Your task to perform on an android device: Go to location settings Image 0: 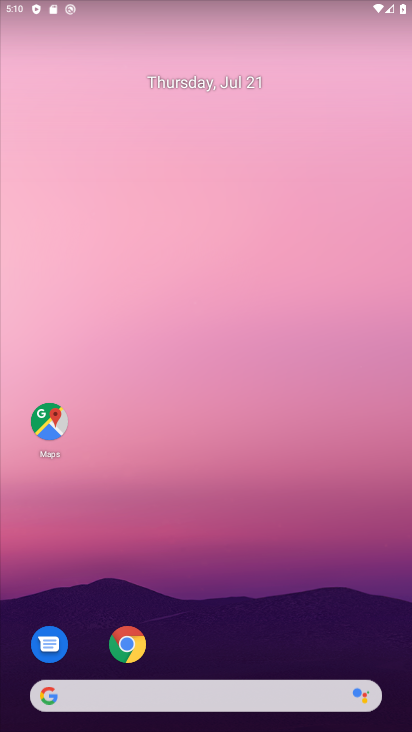
Step 0: drag from (279, 620) to (238, 313)
Your task to perform on an android device: Go to location settings Image 1: 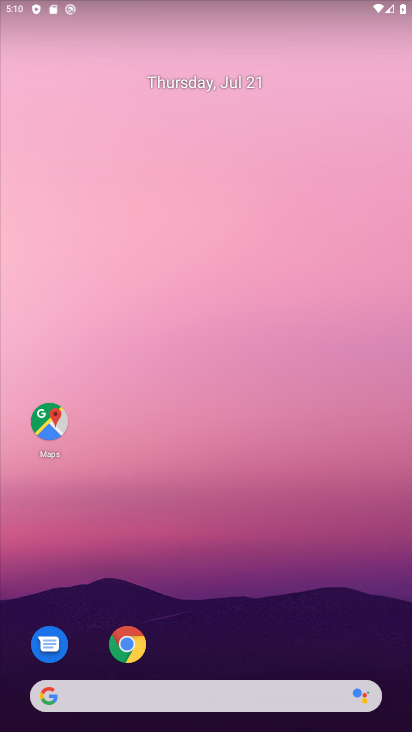
Step 1: drag from (263, 582) to (220, 213)
Your task to perform on an android device: Go to location settings Image 2: 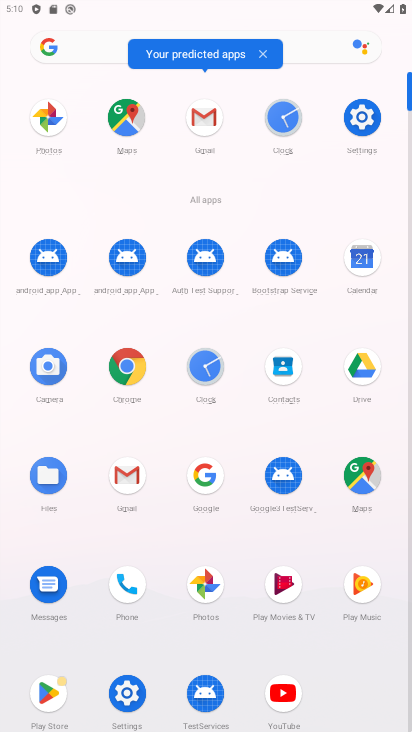
Step 2: click (352, 123)
Your task to perform on an android device: Go to location settings Image 3: 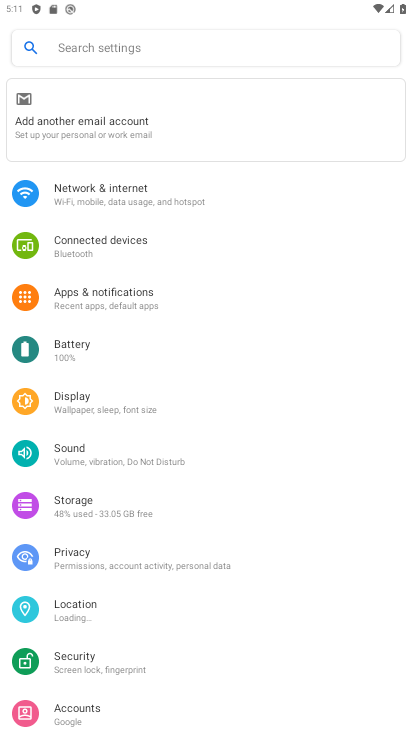
Step 3: click (77, 609)
Your task to perform on an android device: Go to location settings Image 4: 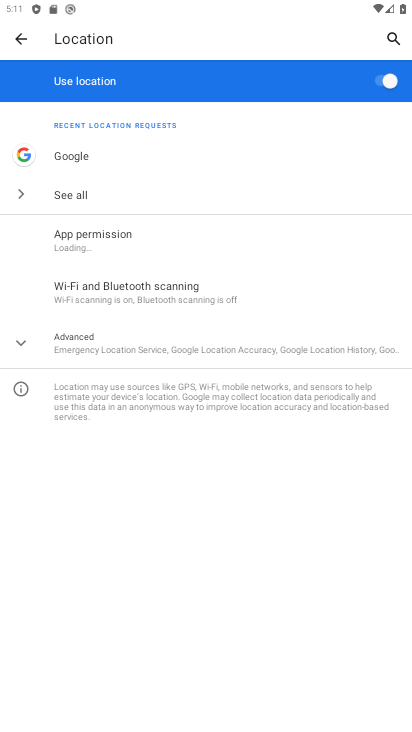
Step 4: task complete